Your task to perform on an android device: Show me recent news Image 0: 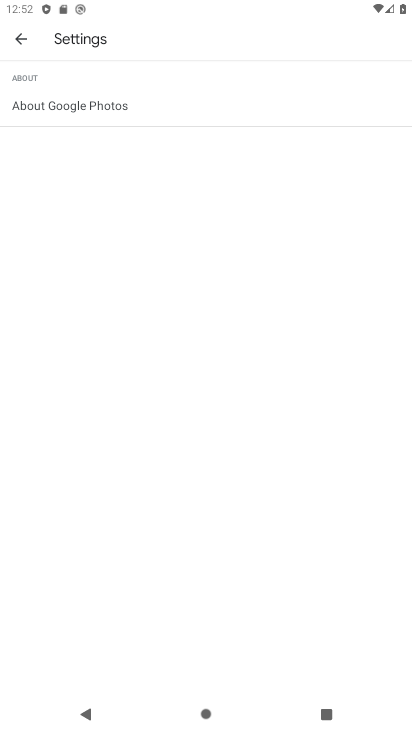
Step 0: press home button
Your task to perform on an android device: Show me recent news Image 1: 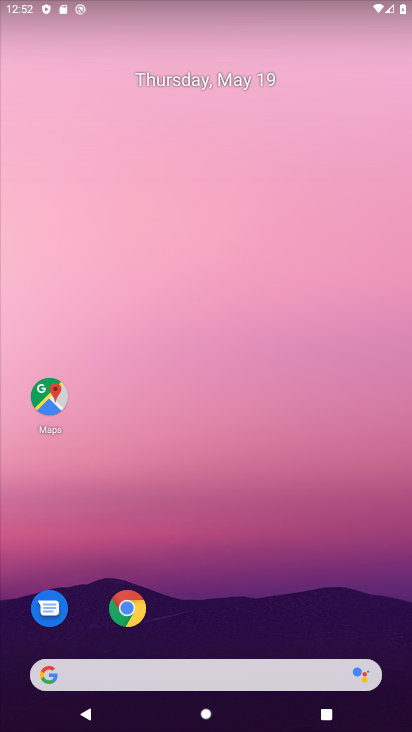
Step 1: click (209, 683)
Your task to perform on an android device: Show me recent news Image 2: 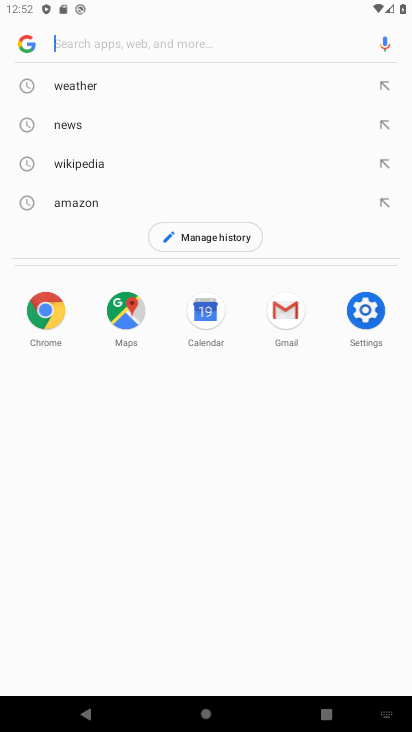
Step 2: type "recent news"
Your task to perform on an android device: Show me recent news Image 3: 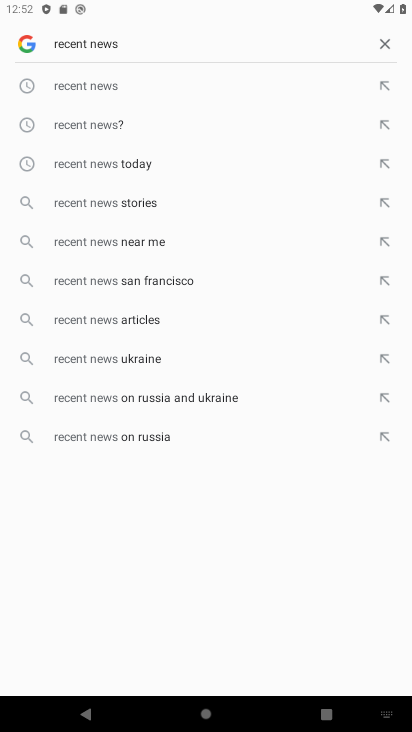
Step 3: click (101, 83)
Your task to perform on an android device: Show me recent news Image 4: 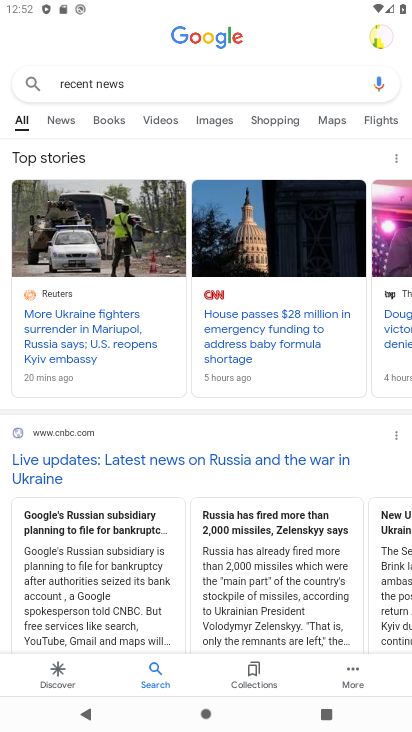
Step 4: task complete